Your task to perform on an android device: read, delete, or share a saved page in the chrome app Image 0: 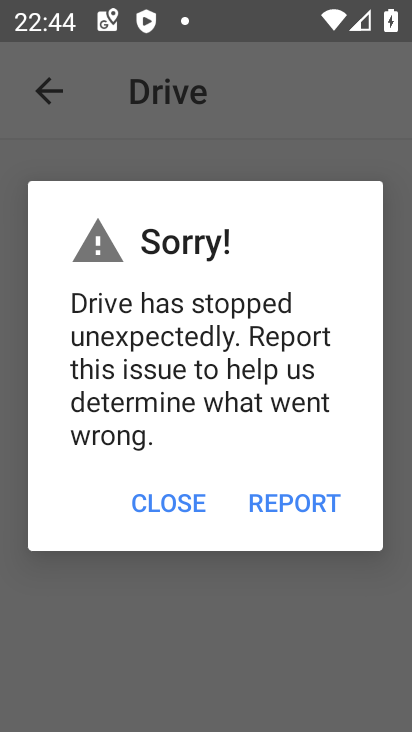
Step 0: press home button
Your task to perform on an android device: read, delete, or share a saved page in the chrome app Image 1: 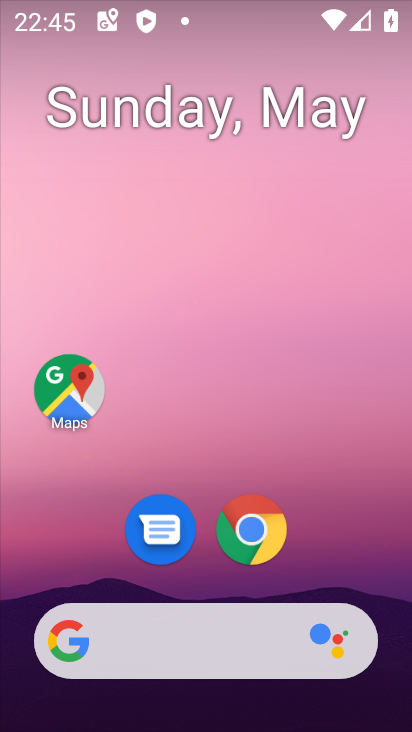
Step 1: click (258, 547)
Your task to perform on an android device: read, delete, or share a saved page in the chrome app Image 2: 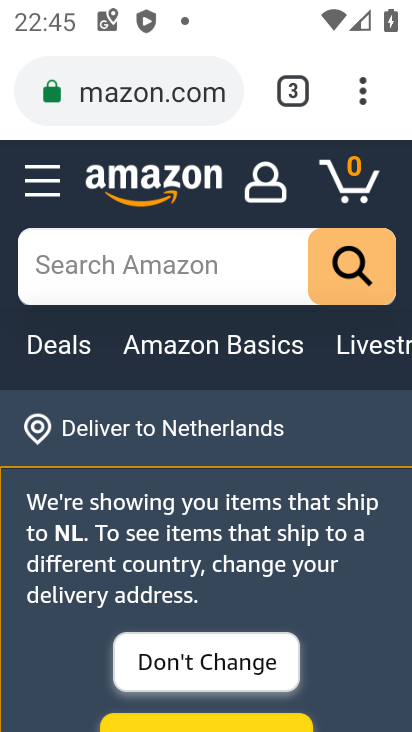
Step 2: click (365, 102)
Your task to perform on an android device: read, delete, or share a saved page in the chrome app Image 3: 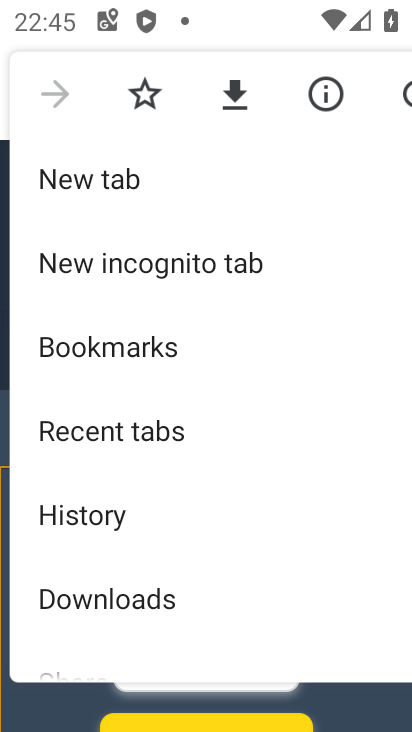
Step 3: click (164, 587)
Your task to perform on an android device: read, delete, or share a saved page in the chrome app Image 4: 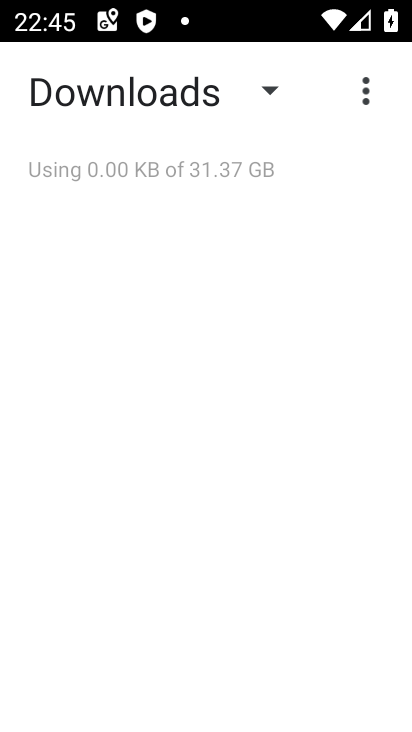
Step 4: task complete